Your task to perform on an android device: turn off improve location accuracy Image 0: 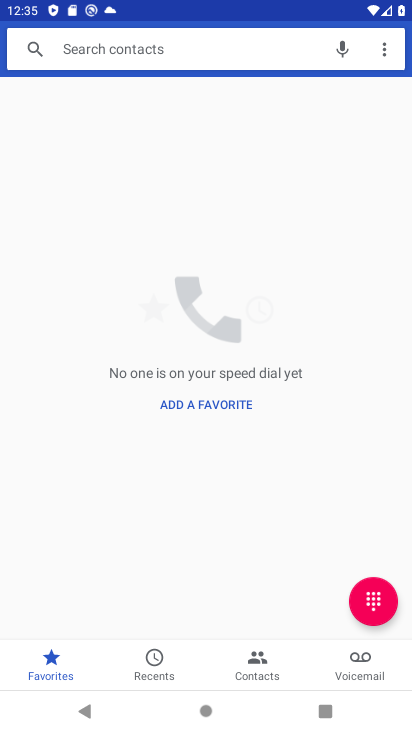
Step 0: press home button
Your task to perform on an android device: turn off improve location accuracy Image 1: 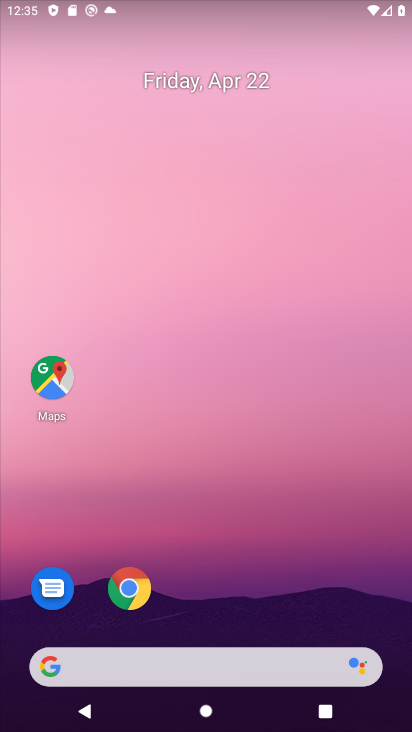
Step 1: drag from (272, 679) to (245, 191)
Your task to perform on an android device: turn off improve location accuracy Image 2: 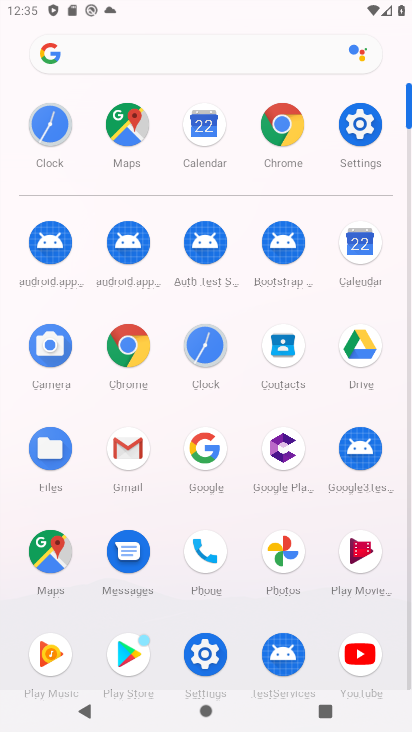
Step 2: click (362, 112)
Your task to perform on an android device: turn off improve location accuracy Image 3: 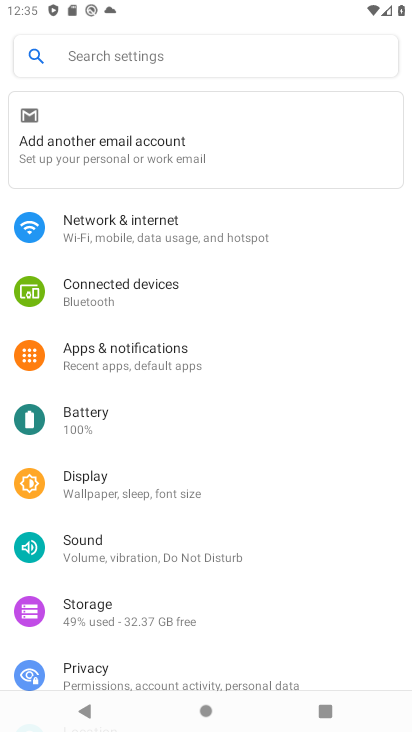
Step 3: drag from (280, 367) to (298, 283)
Your task to perform on an android device: turn off improve location accuracy Image 4: 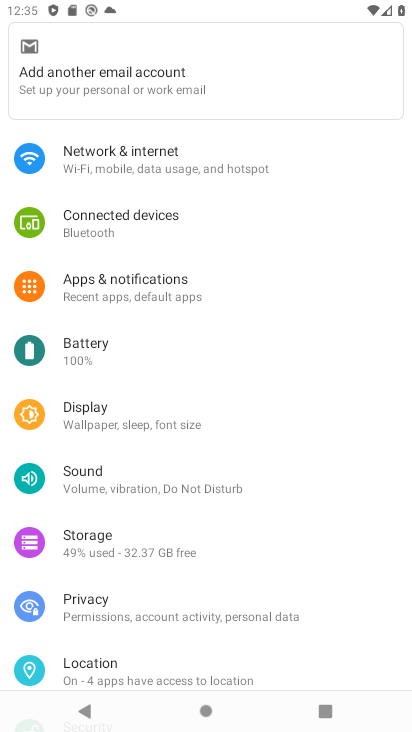
Step 4: click (116, 656)
Your task to perform on an android device: turn off improve location accuracy Image 5: 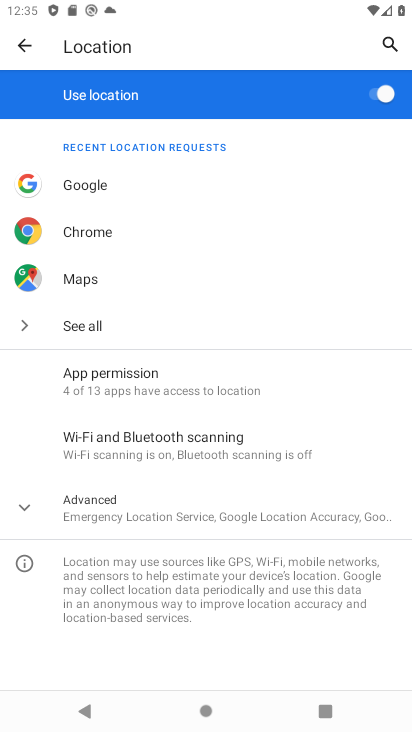
Step 5: click (107, 490)
Your task to perform on an android device: turn off improve location accuracy Image 6: 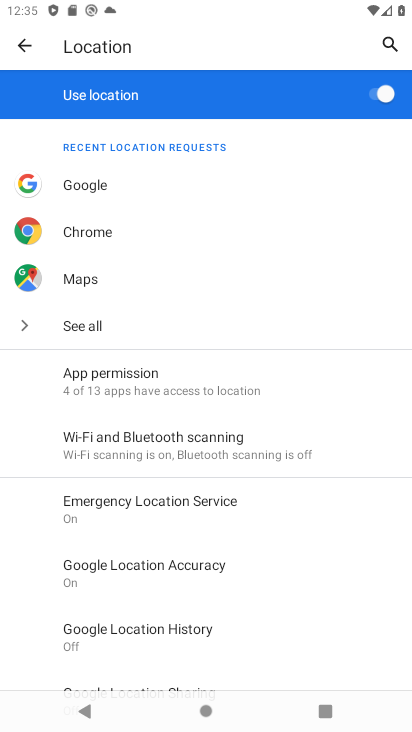
Step 6: click (188, 563)
Your task to perform on an android device: turn off improve location accuracy Image 7: 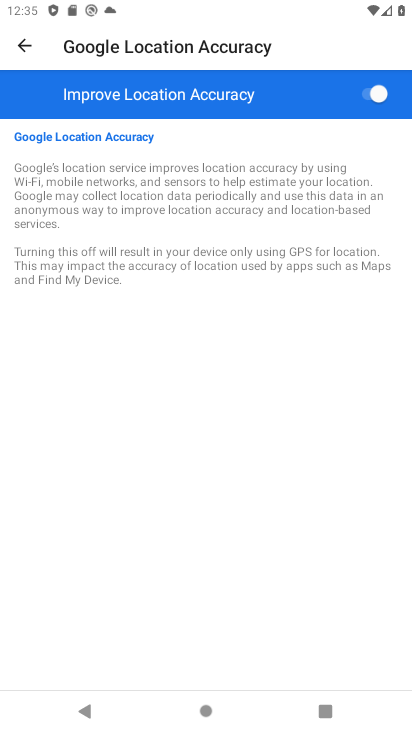
Step 7: task complete